Your task to perform on an android device: open the mobile data screen to see how much data has been used Image 0: 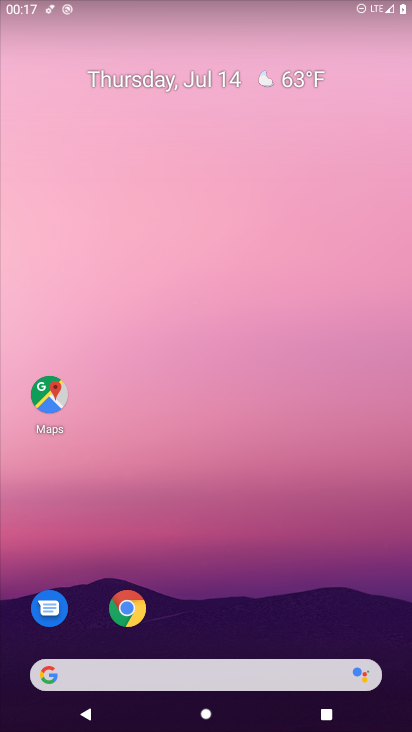
Step 0: press home button
Your task to perform on an android device: open the mobile data screen to see how much data has been used Image 1: 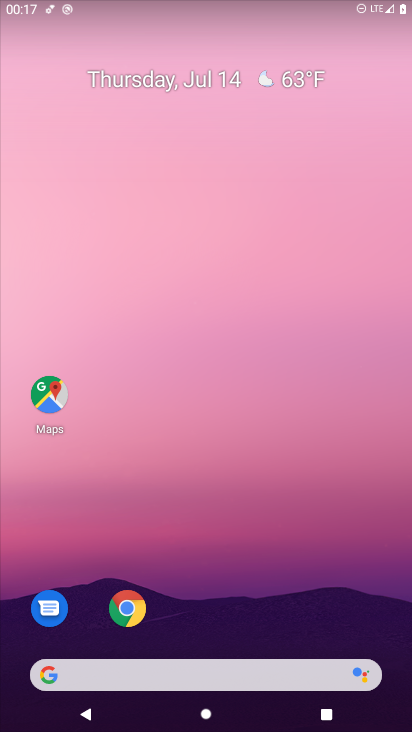
Step 1: drag from (191, 594) to (119, 2)
Your task to perform on an android device: open the mobile data screen to see how much data has been used Image 2: 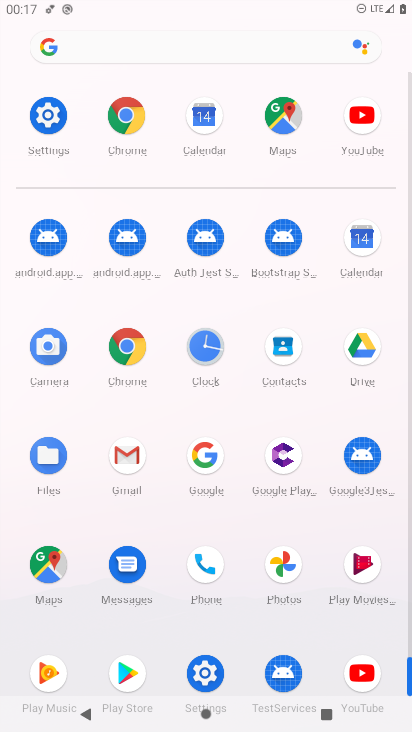
Step 2: click (45, 105)
Your task to perform on an android device: open the mobile data screen to see how much data has been used Image 3: 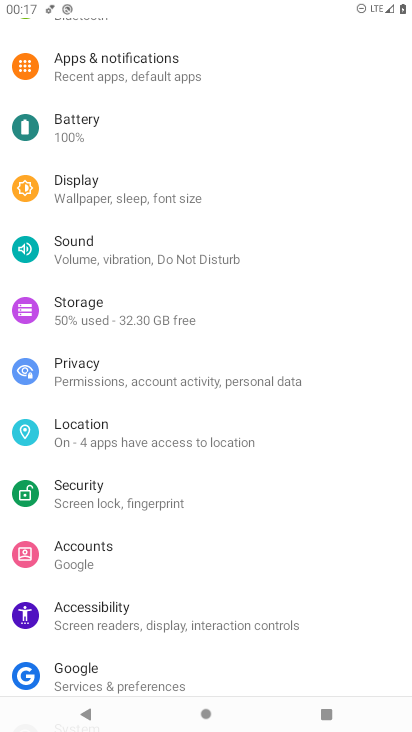
Step 3: drag from (237, 120) to (287, 570)
Your task to perform on an android device: open the mobile data screen to see how much data has been used Image 4: 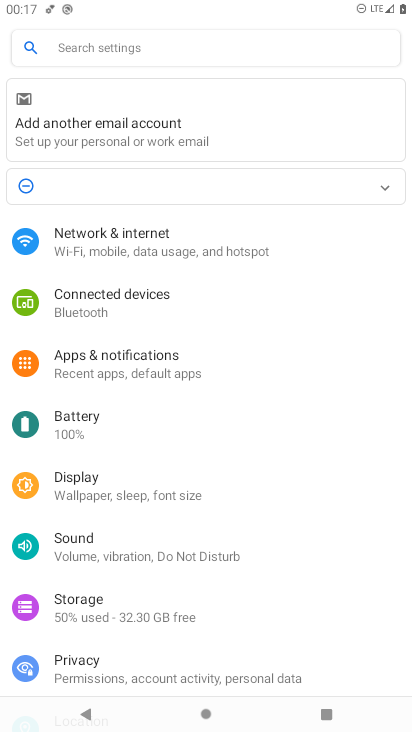
Step 4: click (128, 256)
Your task to perform on an android device: open the mobile data screen to see how much data has been used Image 5: 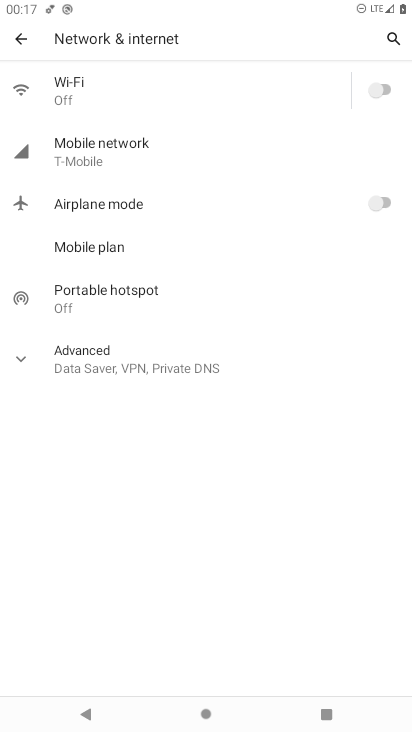
Step 5: click (79, 147)
Your task to perform on an android device: open the mobile data screen to see how much data has been used Image 6: 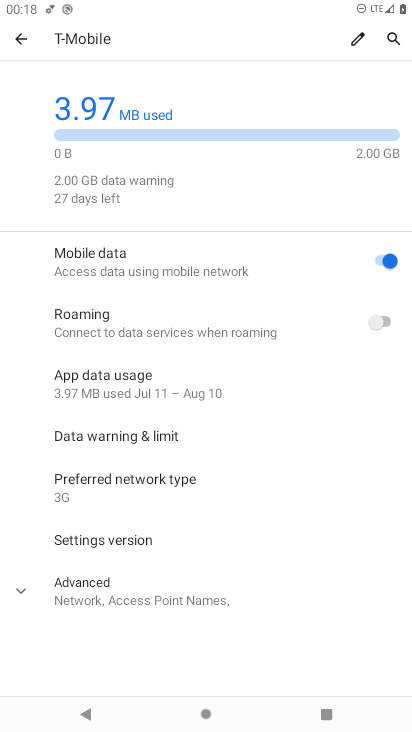
Step 6: click (109, 389)
Your task to perform on an android device: open the mobile data screen to see how much data has been used Image 7: 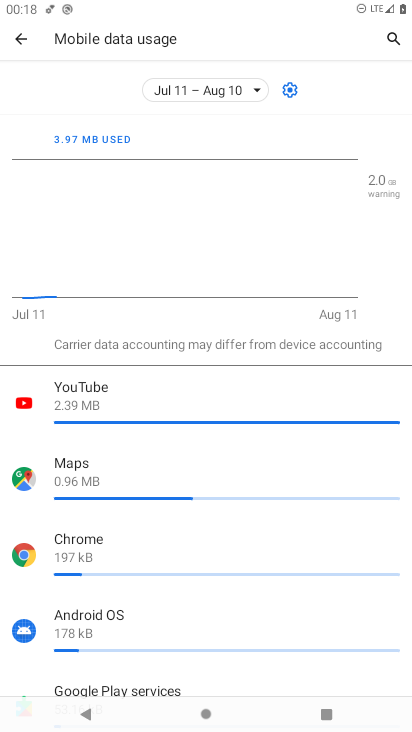
Step 7: task complete